Your task to perform on an android device: Open internet settings Image 0: 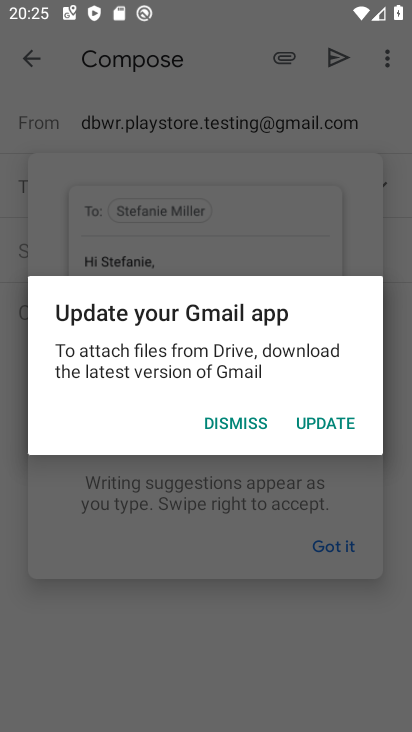
Step 0: press home button
Your task to perform on an android device: Open internet settings Image 1: 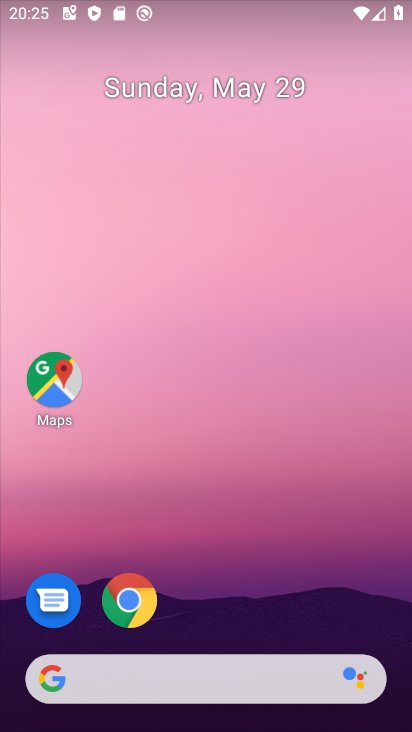
Step 1: drag from (371, 533) to (372, 154)
Your task to perform on an android device: Open internet settings Image 2: 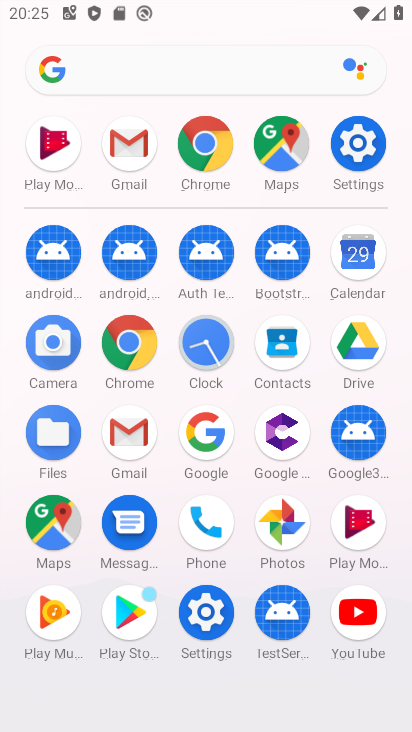
Step 2: click (205, 616)
Your task to perform on an android device: Open internet settings Image 3: 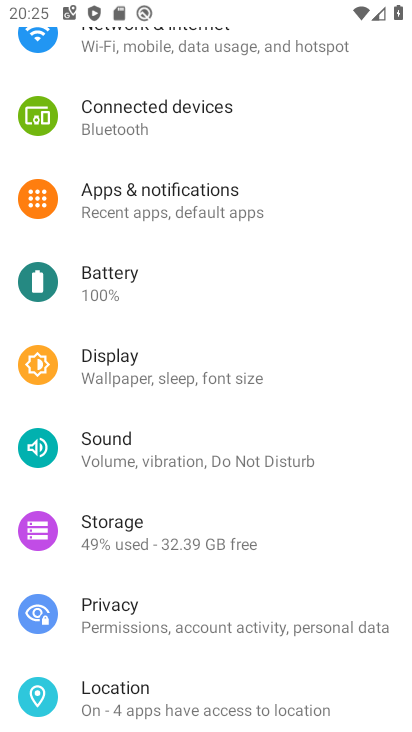
Step 3: drag from (251, 170) to (220, 399)
Your task to perform on an android device: Open internet settings Image 4: 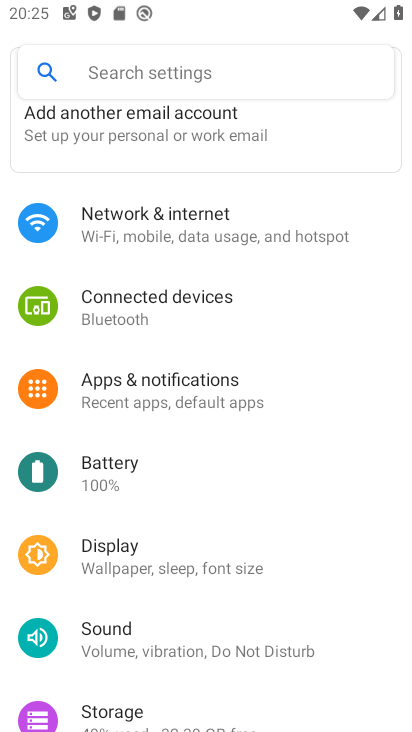
Step 4: click (267, 233)
Your task to perform on an android device: Open internet settings Image 5: 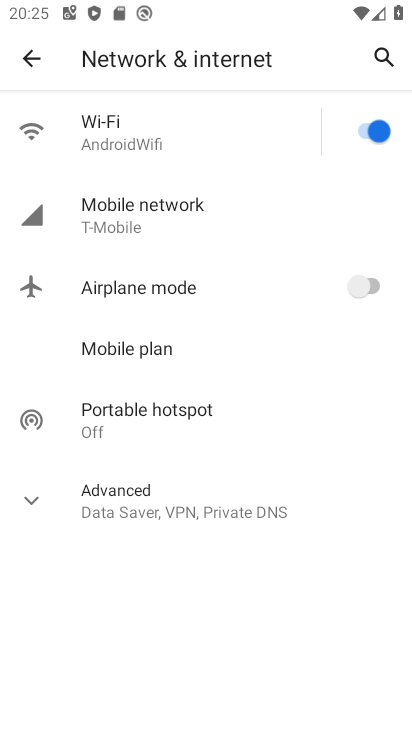
Step 5: click (224, 217)
Your task to perform on an android device: Open internet settings Image 6: 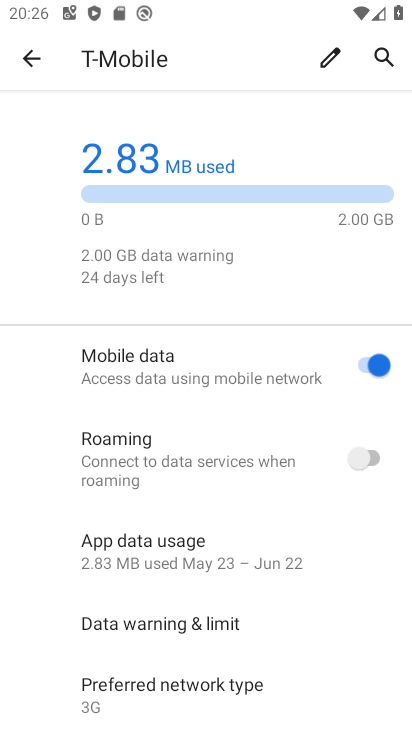
Step 6: task complete